Your task to perform on an android device: toggle location history Image 0: 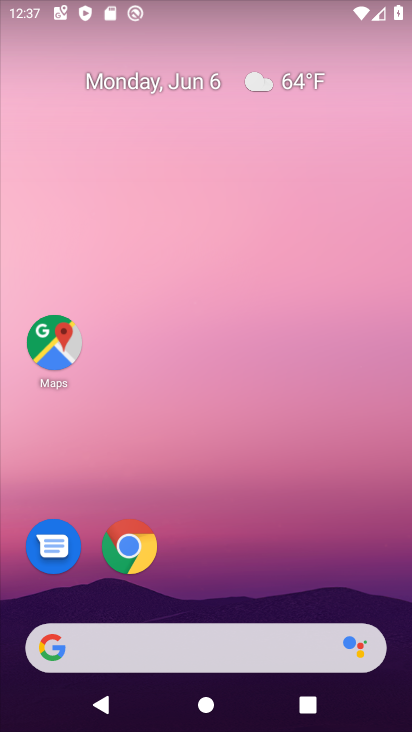
Step 0: drag from (282, 507) to (295, 309)
Your task to perform on an android device: toggle location history Image 1: 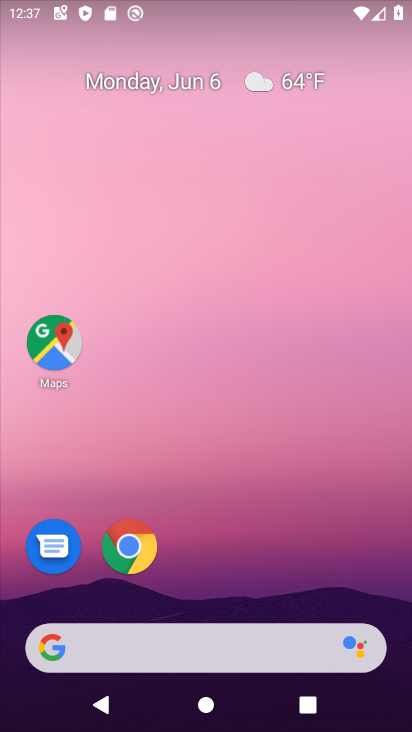
Step 1: drag from (227, 601) to (207, 177)
Your task to perform on an android device: toggle location history Image 2: 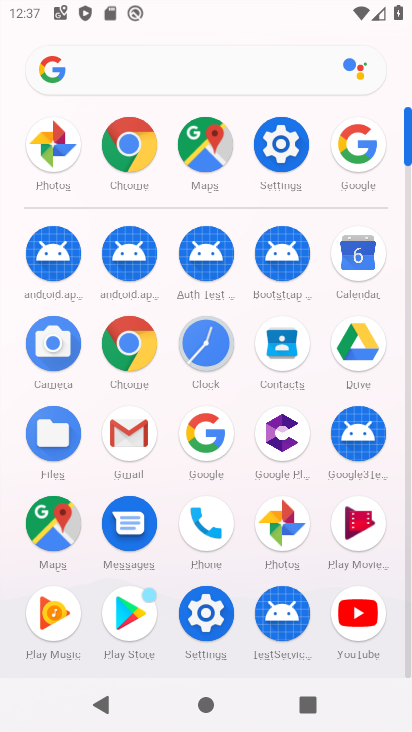
Step 2: click (285, 138)
Your task to perform on an android device: toggle location history Image 3: 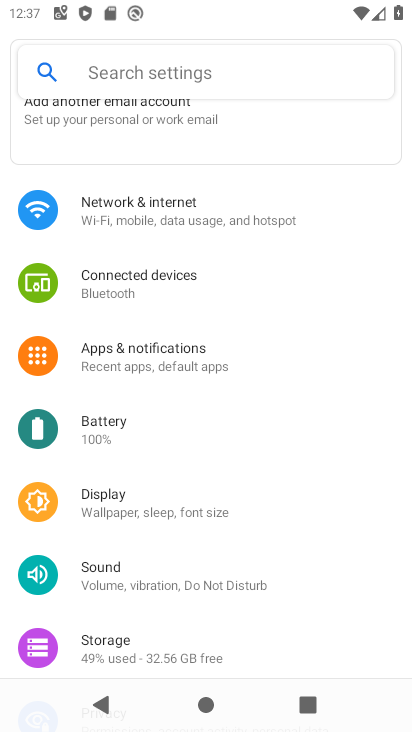
Step 3: drag from (196, 616) to (239, 331)
Your task to perform on an android device: toggle location history Image 4: 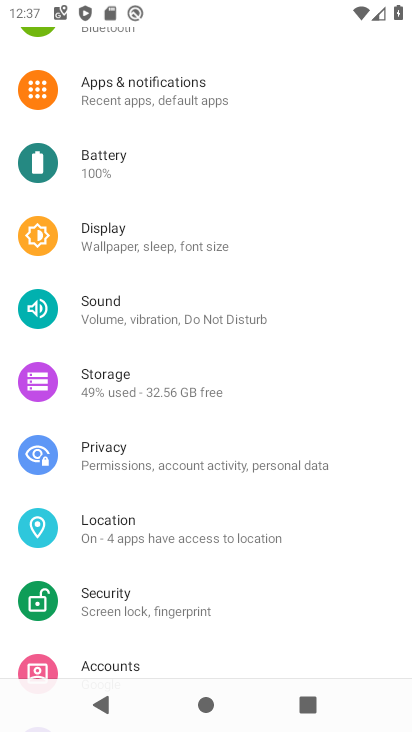
Step 4: click (140, 534)
Your task to perform on an android device: toggle location history Image 5: 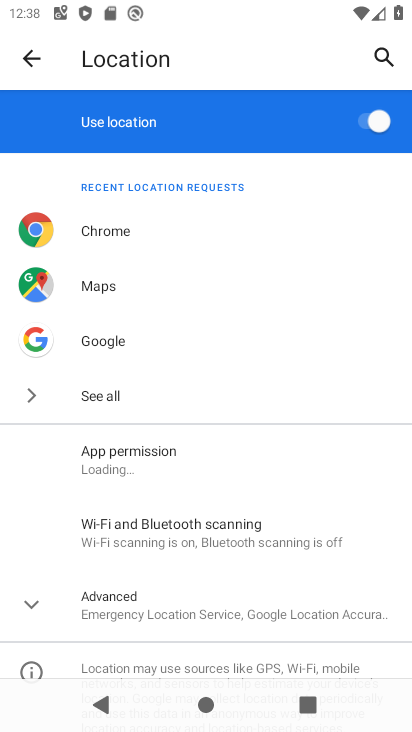
Step 5: click (169, 608)
Your task to perform on an android device: toggle location history Image 6: 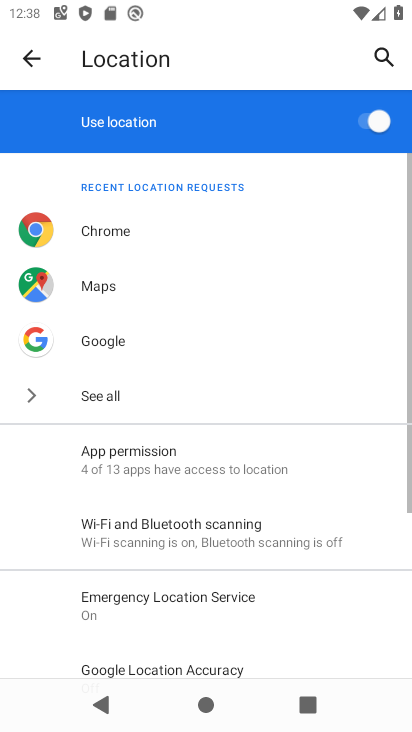
Step 6: drag from (217, 602) to (246, 355)
Your task to perform on an android device: toggle location history Image 7: 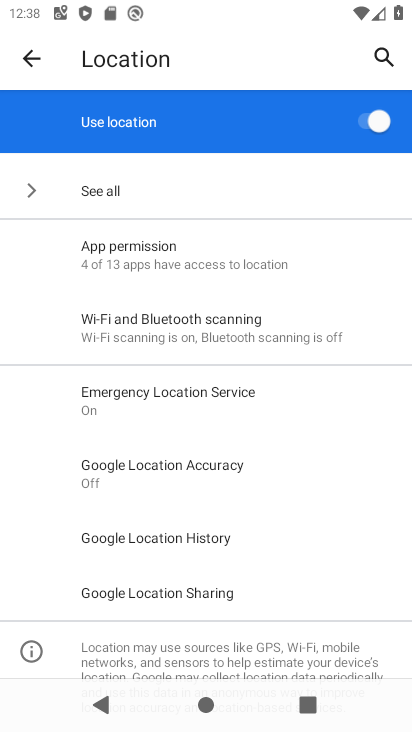
Step 7: click (203, 531)
Your task to perform on an android device: toggle location history Image 8: 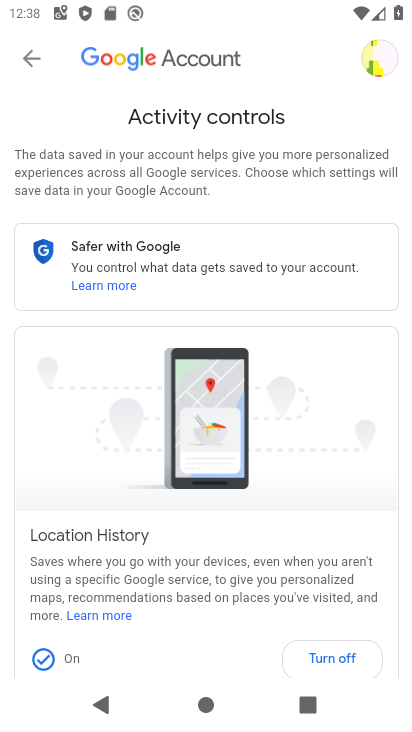
Step 8: click (326, 646)
Your task to perform on an android device: toggle location history Image 9: 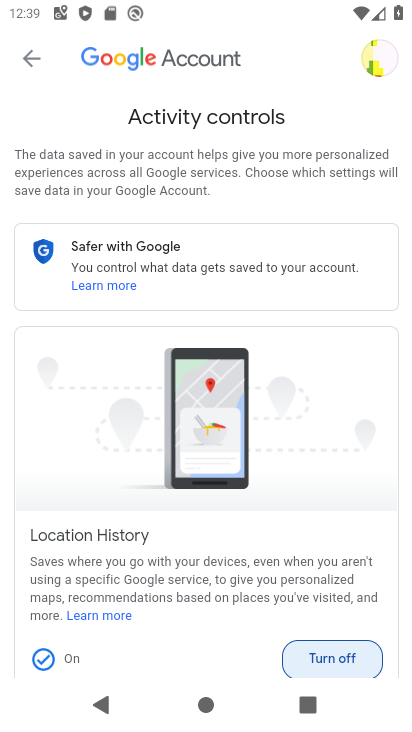
Step 9: task complete